Your task to perform on an android device: Go to settings Image 0: 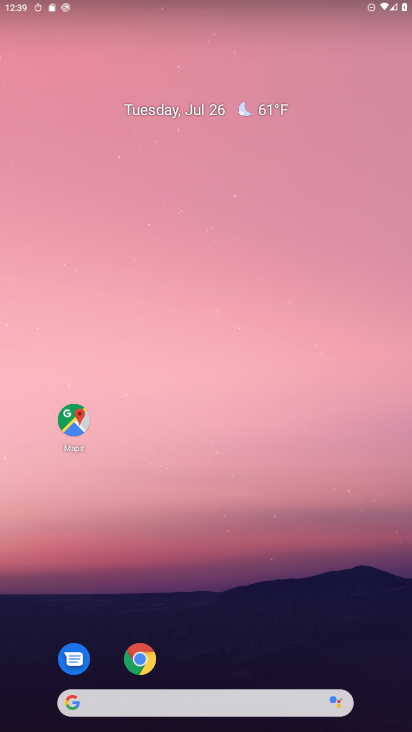
Step 0: drag from (62, 601) to (162, 414)
Your task to perform on an android device: Go to settings Image 1: 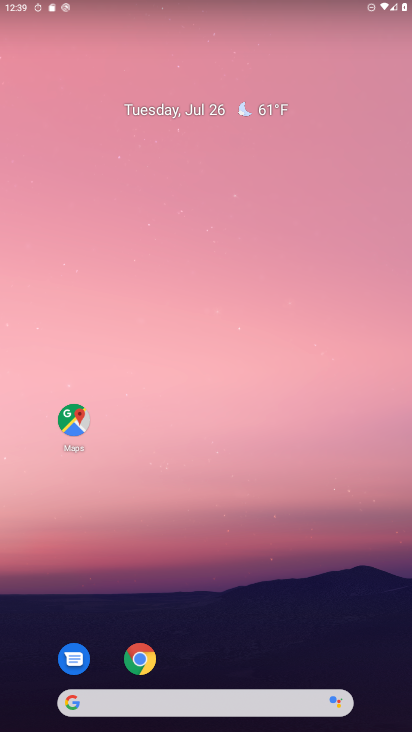
Step 1: drag from (33, 671) to (384, 143)
Your task to perform on an android device: Go to settings Image 2: 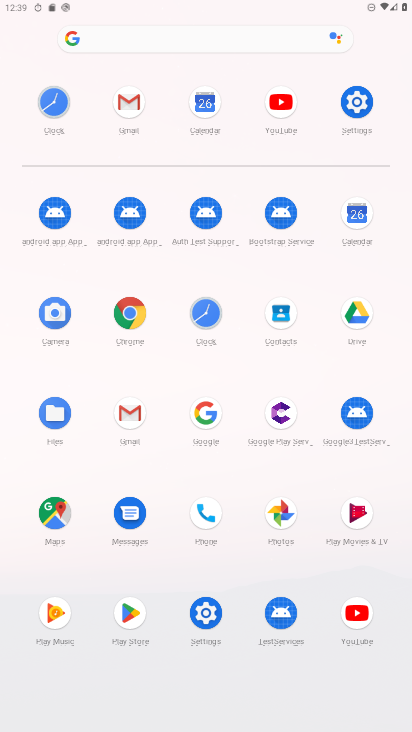
Step 2: click (367, 109)
Your task to perform on an android device: Go to settings Image 3: 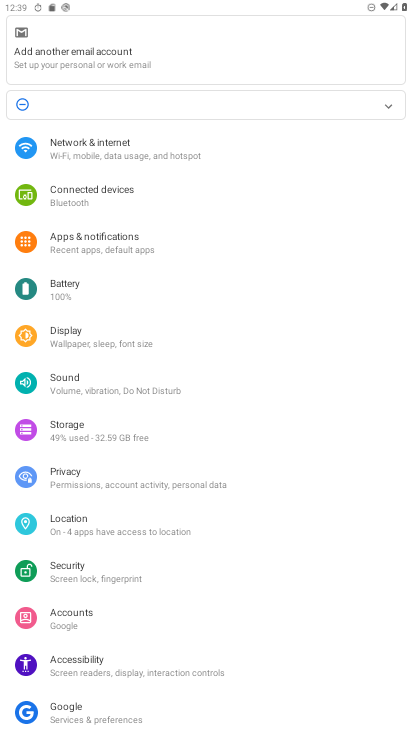
Step 3: task complete